Your task to perform on an android device: Open Google Chrome and open the bookmarks view Image 0: 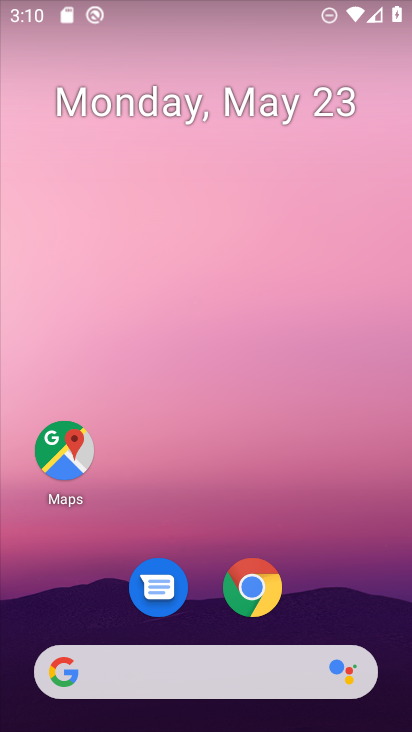
Step 0: click (260, 586)
Your task to perform on an android device: Open Google Chrome and open the bookmarks view Image 1: 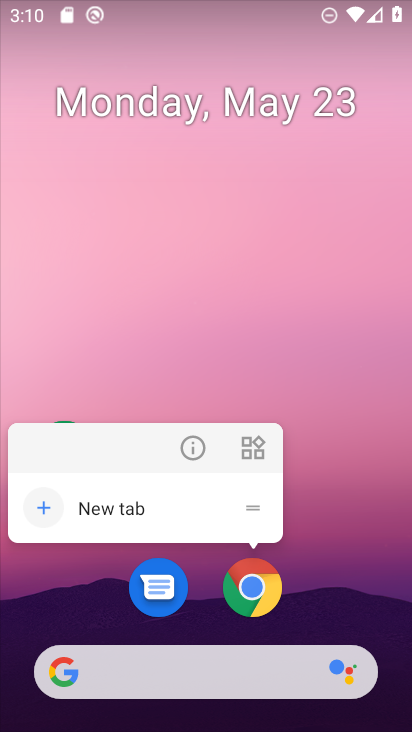
Step 1: click (265, 586)
Your task to perform on an android device: Open Google Chrome and open the bookmarks view Image 2: 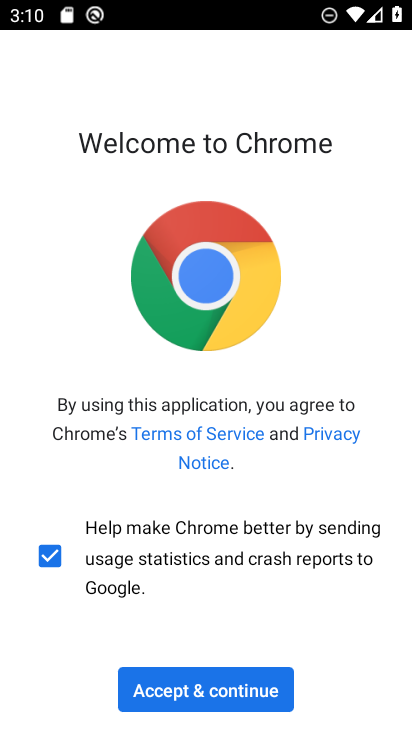
Step 2: click (239, 686)
Your task to perform on an android device: Open Google Chrome and open the bookmarks view Image 3: 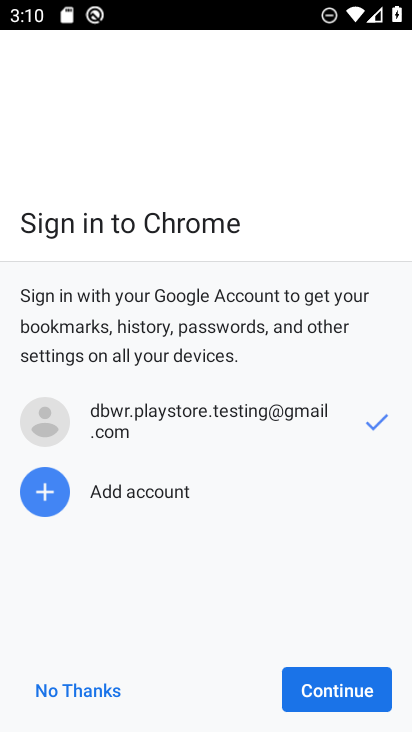
Step 3: click (328, 696)
Your task to perform on an android device: Open Google Chrome and open the bookmarks view Image 4: 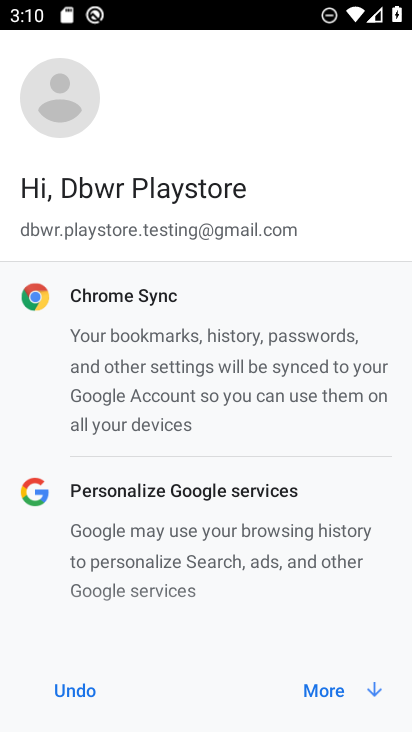
Step 4: click (330, 691)
Your task to perform on an android device: Open Google Chrome and open the bookmarks view Image 5: 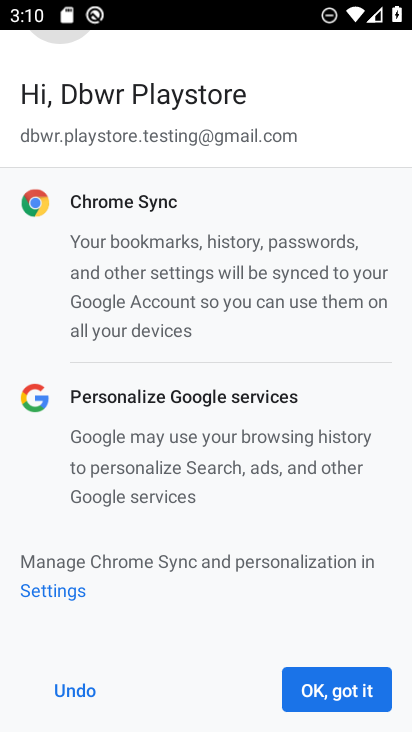
Step 5: click (335, 695)
Your task to perform on an android device: Open Google Chrome and open the bookmarks view Image 6: 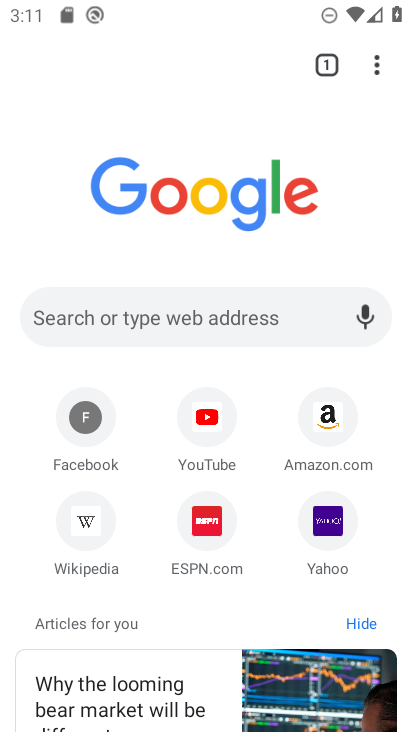
Step 6: click (377, 63)
Your task to perform on an android device: Open Google Chrome and open the bookmarks view Image 7: 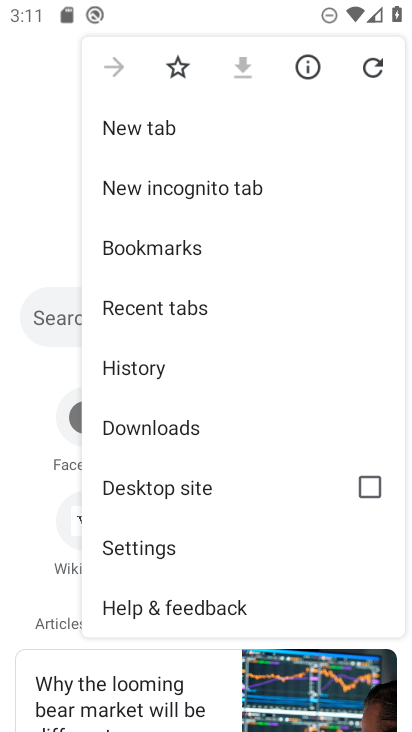
Step 7: click (165, 242)
Your task to perform on an android device: Open Google Chrome and open the bookmarks view Image 8: 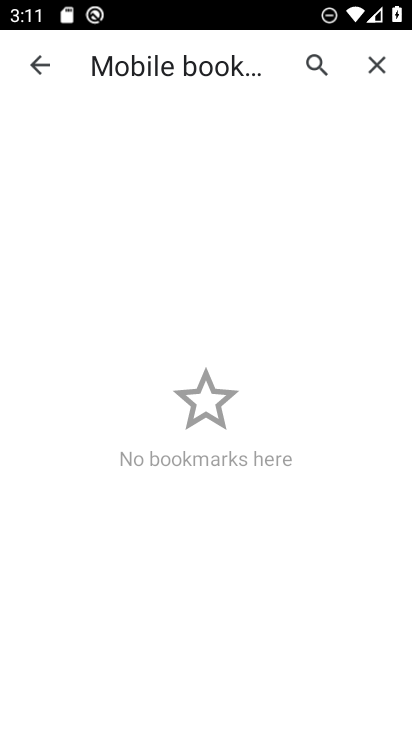
Step 8: task complete